Your task to perform on an android device: Open location settings Image 0: 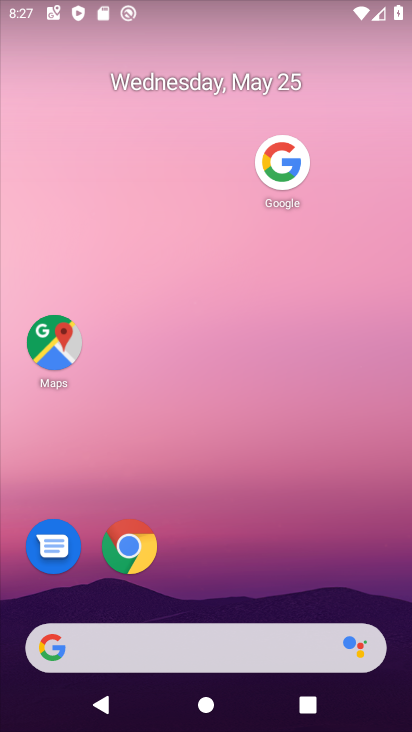
Step 0: drag from (148, 632) to (294, 205)
Your task to perform on an android device: Open location settings Image 1: 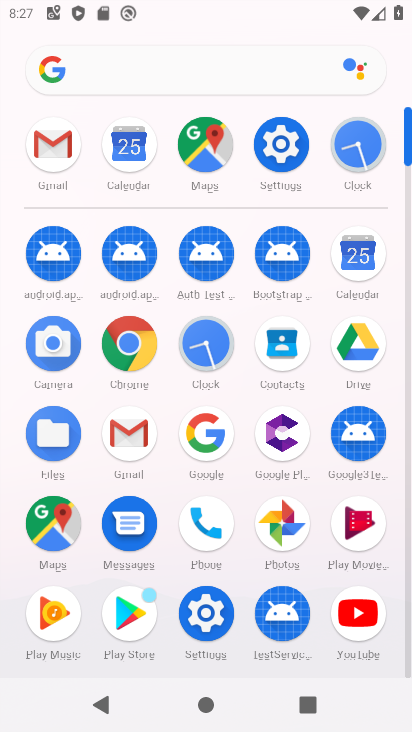
Step 1: click (275, 151)
Your task to perform on an android device: Open location settings Image 2: 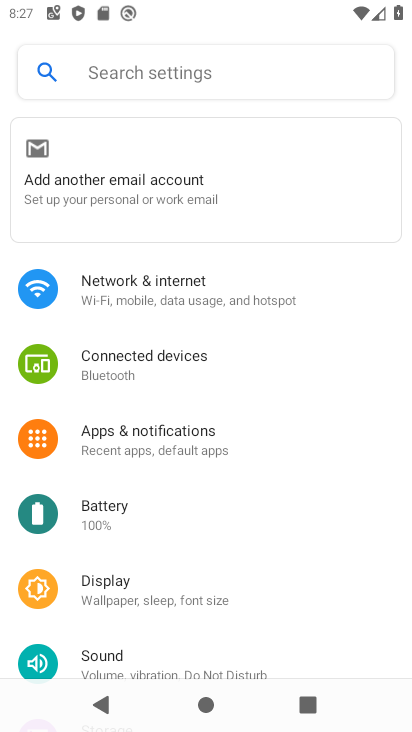
Step 2: drag from (193, 630) to (355, 269)
Your task to perform on an android device: Open location settings Image 3: 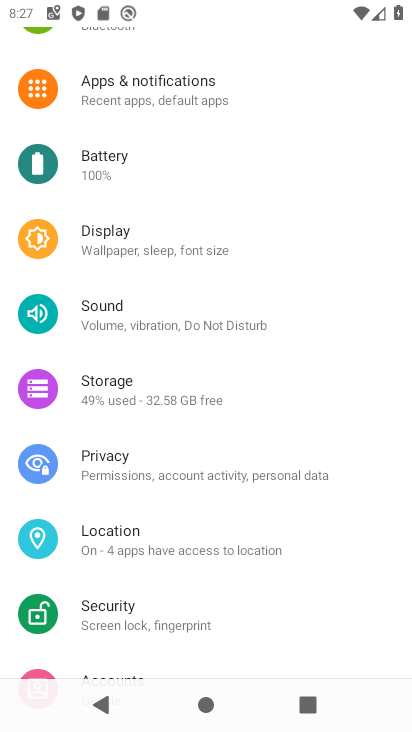
Step 3: click (132, 551)
Your task to perform on an android device: Open location settings Image 4: 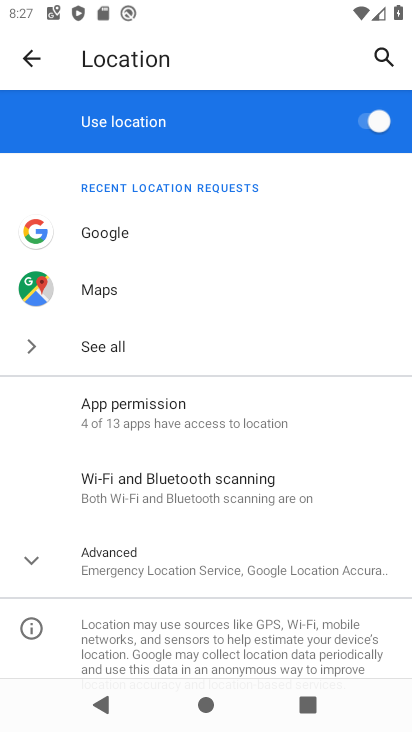
Step 4: task complete